Your task to perform on an android device: Open the Play Movies app and select the watchlist tab. Image 0: 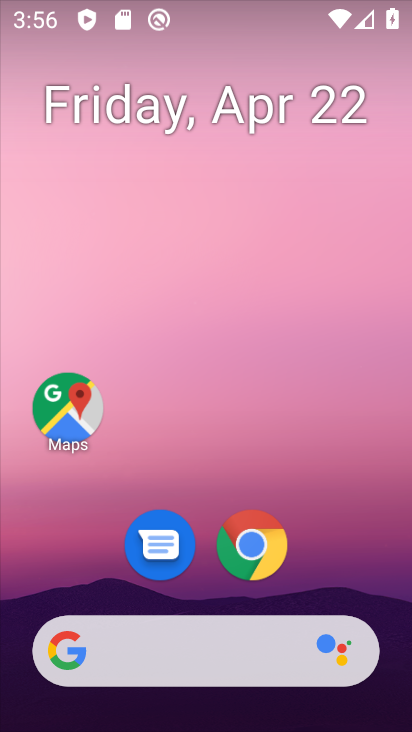
Step 0: drag from (333, 496) to (383, 1)
Your task to perform on an android device: Open the Play Movies app and select the watchlist tab. Image 1: 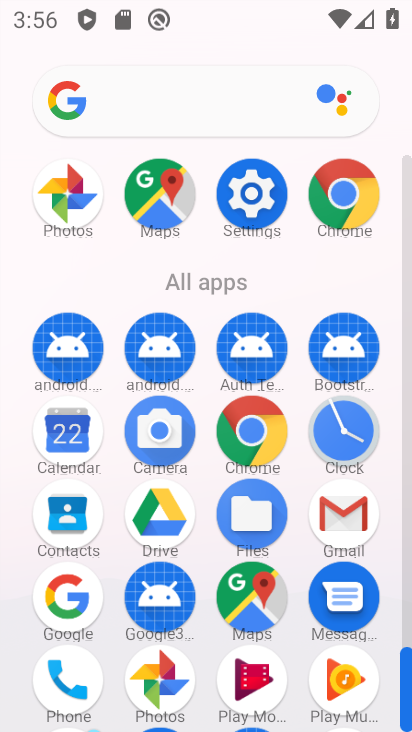
Step 1: click (242, 693)
Your task to perform on an android device: Open the Play Movies app and select the watchlist tab. Image 2: 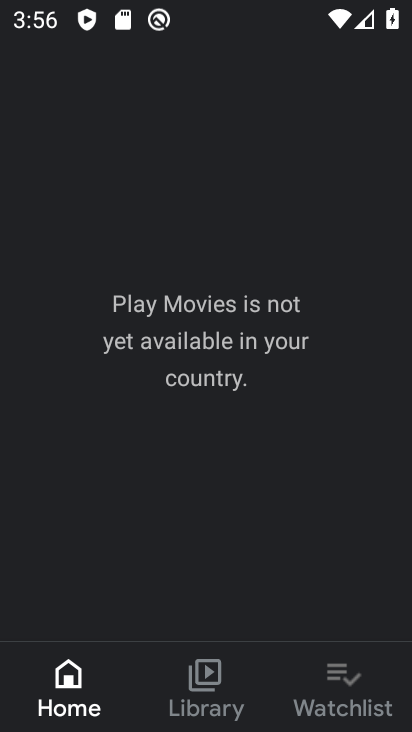
Step 2: click (347, 690)
Your task to perform on an android device: Open the Play Movies app and select the watchlist tab. Image 3: 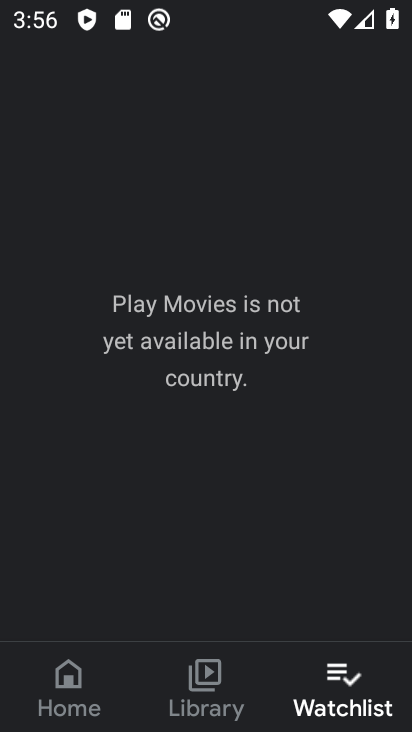
Step 3: task complete